Your task to perform on an android device: Do I have any events tomorrow? Image 0: 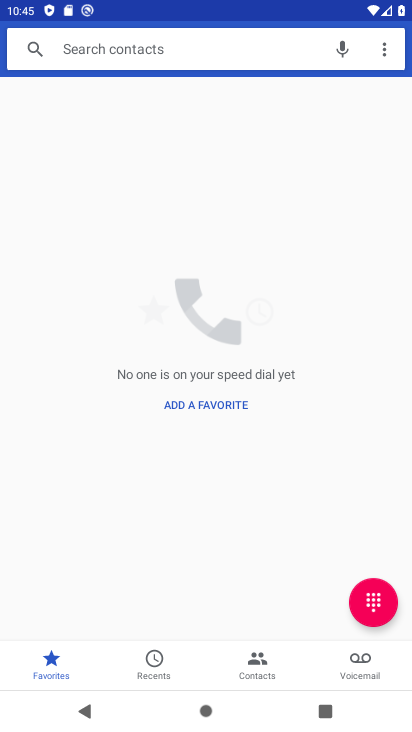
Step 0: press home button
Your task to perform on an android device: Do I have any events tomorrow? Image 1: 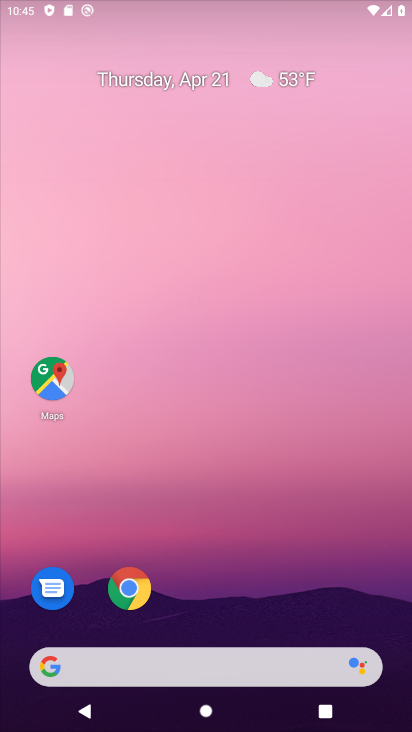
Step 1: drag from (286, 508) to (215, 4)
Your task to perform on an android device: Do I have any events tomorrow? Image 2: 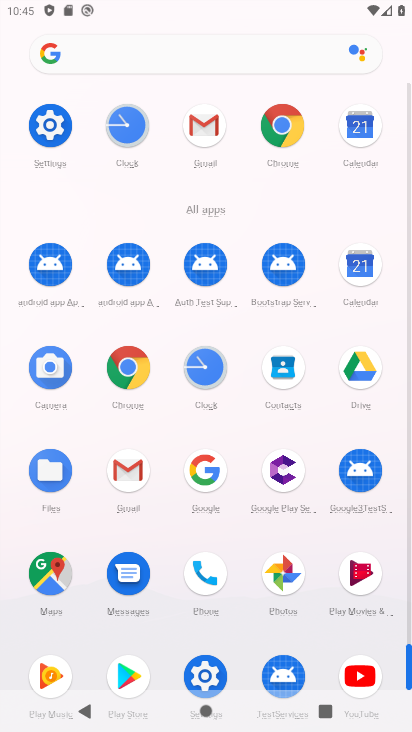
Step 2: click (371, 248)
Your task to perform on an android device: Do I have any events tomorrow? Image 3: 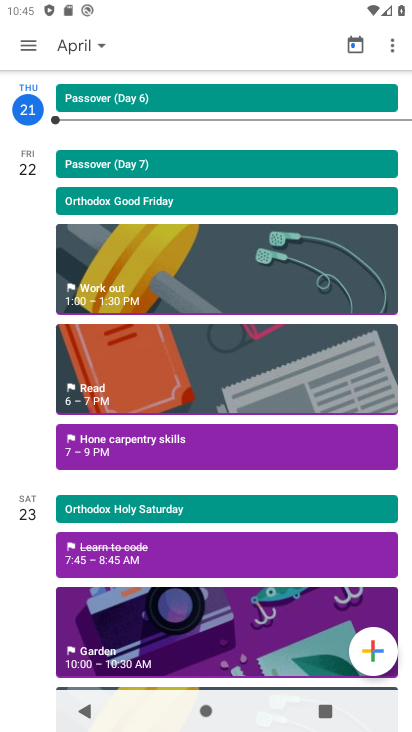
Step 3: click (27, 41)
Your task to perform on an android device: Do I have any events tomorrow? Image 4: 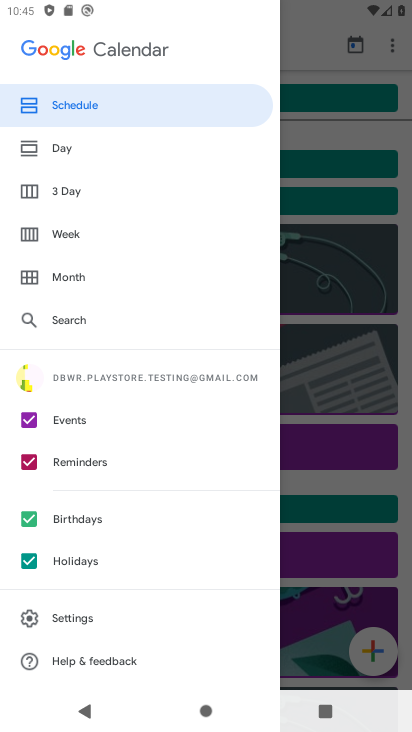
Step 4: click (73, 153)
Your task to perform on an android device: Do I have any events tomorrow? Image 5: 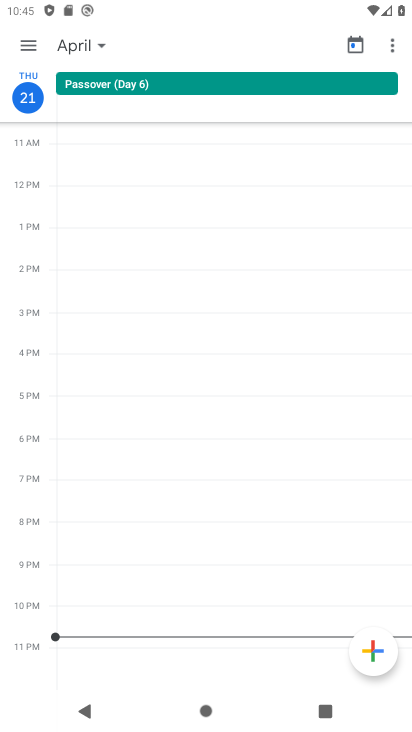
Step 5: click (85, 35)
Your task to perform on an android device: Do I have any events tomorrow? Image 6: 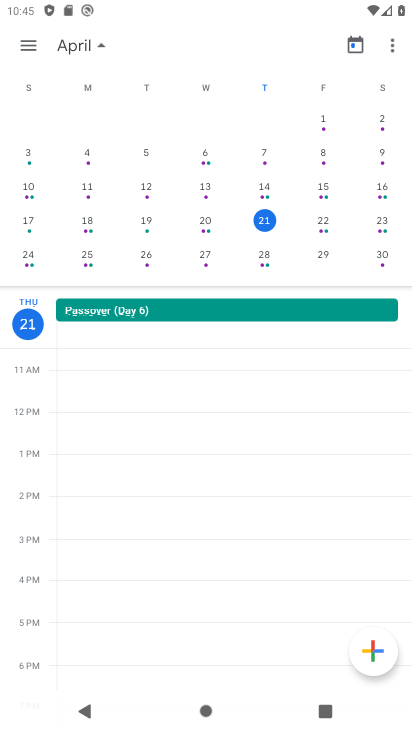
Step 6: click (320, 221)
Your task to perform on an android device: Do I have any events tomorrow? Image 7: 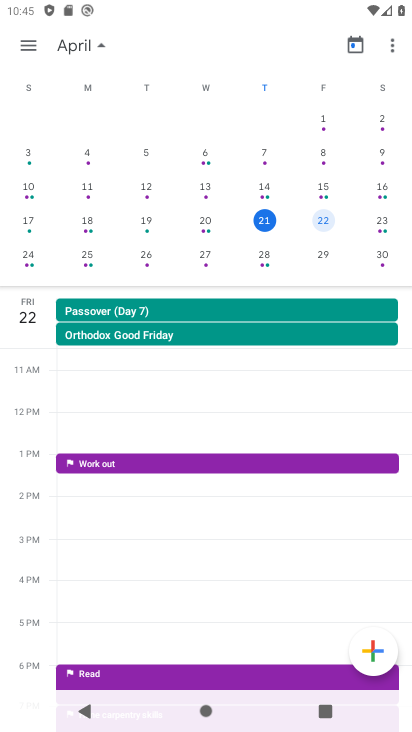
Step 7: task complete